Your task to perform on an android device: Open settings on Google Maps Image 0: 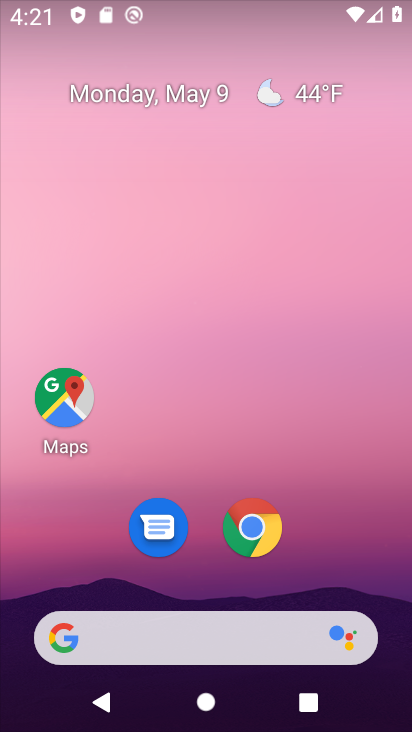
Step 0: click (64, 405)
Your task to perform on an android device: Open settings on Google Maps Image 1: 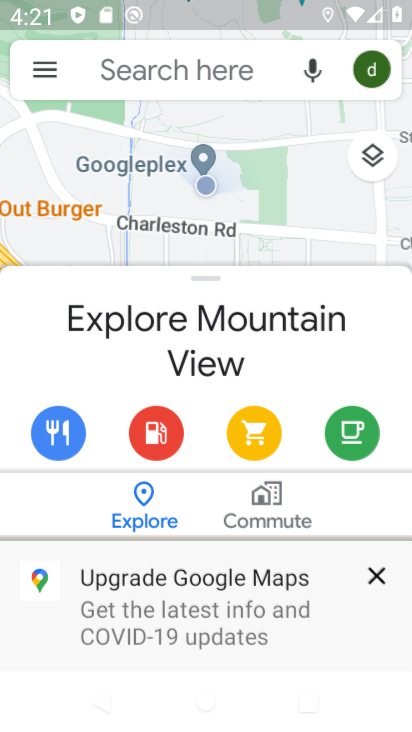
Step 1: click (55, 66)
Your task to perform on an android device: Open settings on Google Maps Image 2: 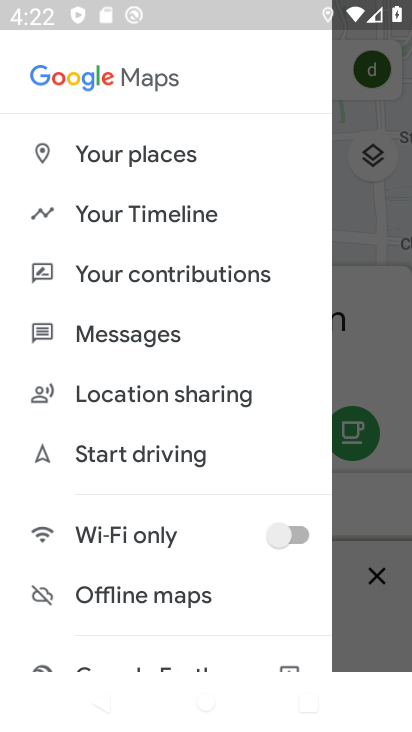
Step 2: drag from (90, 602) to (104, 181)
Your task to perform on an android device: Open settings on Google Maps Image 3: 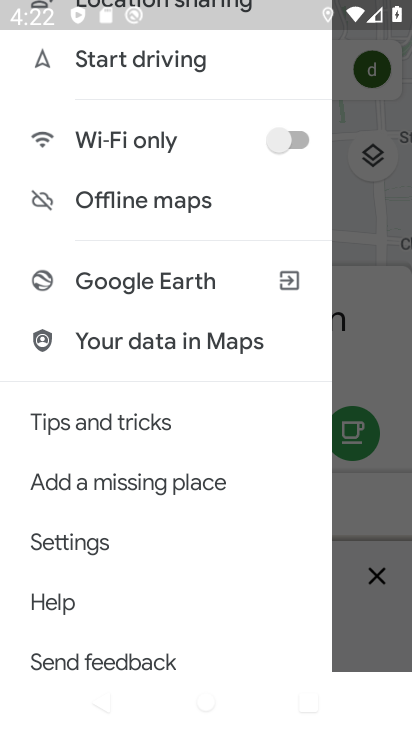
Step 3: click (107, 547)
Your task to perform on an android device: Open settings on Google Maps Image 4: 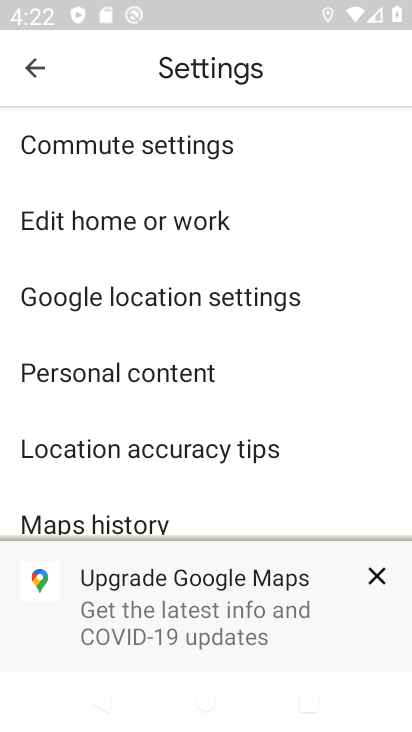
Step 4: task complete